Your task to perform on an android device: Go to settings Image 0: 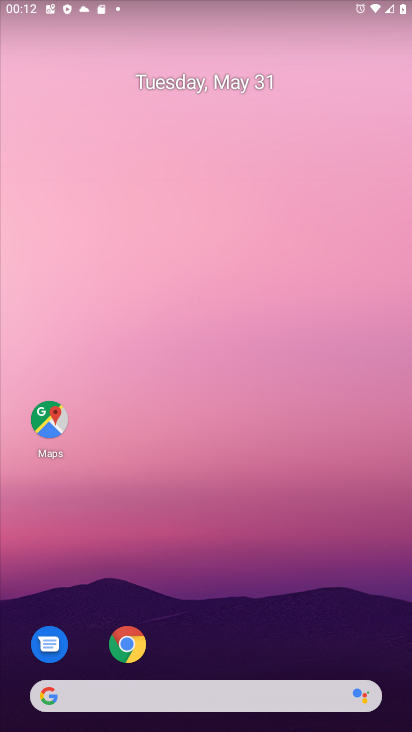
Step 0: click (338, 222)
Your task to perform on an android device: Go to settings Image 1: 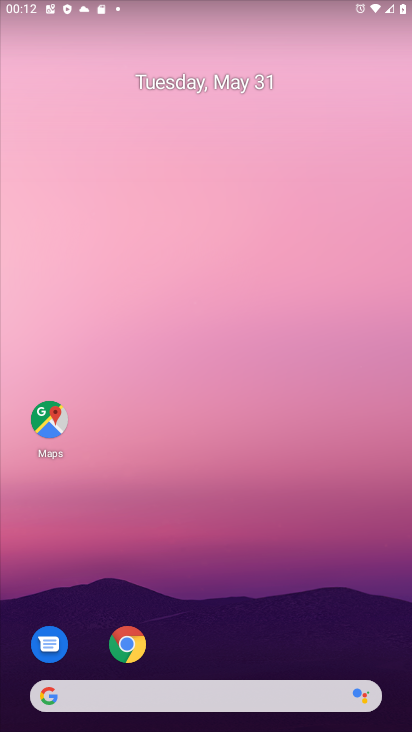
Step 1: drag from (354, 618) to (339, 212)
Your task to perform on an android device: Go to settings Image 2: 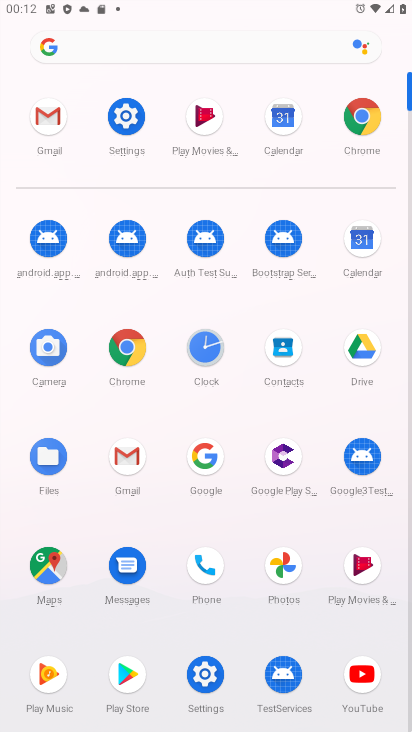
Step 2: click (207, 675)
Your task to perform on an android device: Go to settings Image 3: 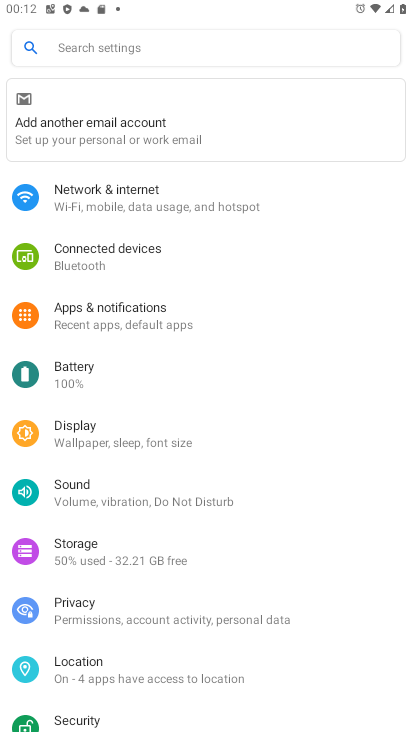
Step 3: task complete